Your task to perform on an android device: Go to CNN.com Image 0: 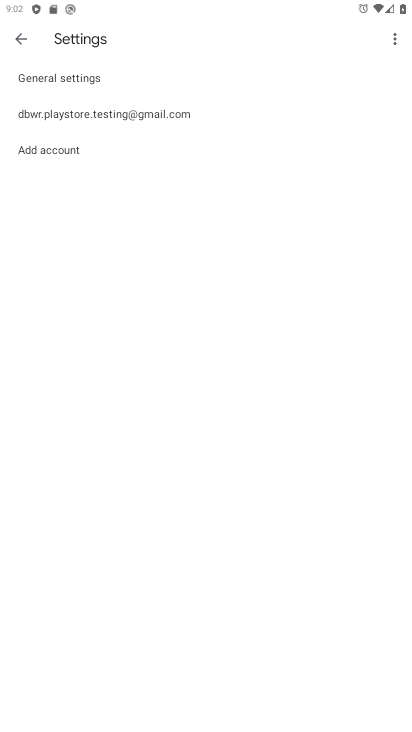
Step 0: press home button
Your task to perform on an android device: Go to CNN.com Image 1: 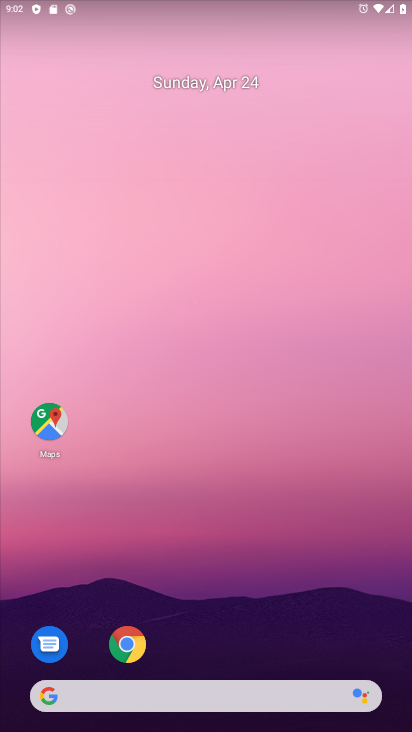
Step 1: drag from (208, 670) to (194, 24)
Your task to perform on an android device: Go to CNN.com Image 2: 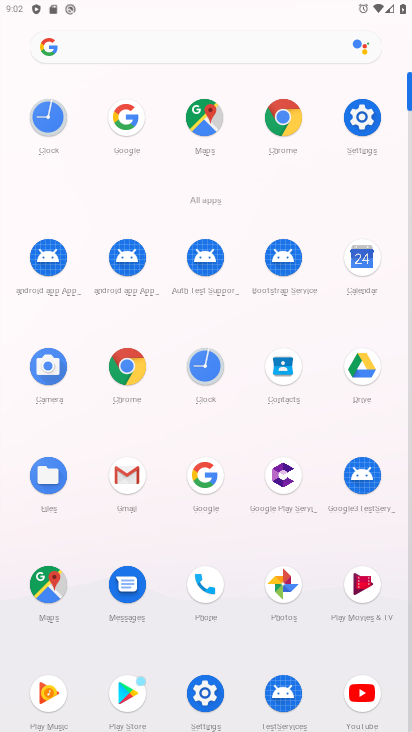
Step 2: click (280, 122)
Your task to perform on an android device: Go to CNN.com Image 3: 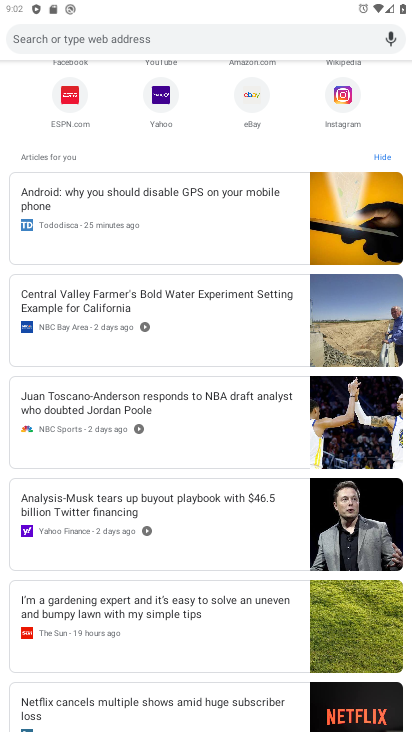
Step 3: drag from (260, 158) to (227, 667)
Your task to perform on an android device: Go to CNN.com Image 4: 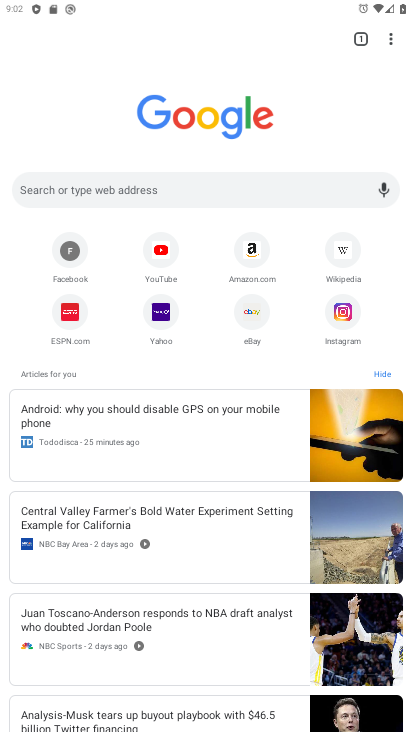
Step 4: click (197, 192)
Your task to perform on an android device: Go to CNN.com Image 5: 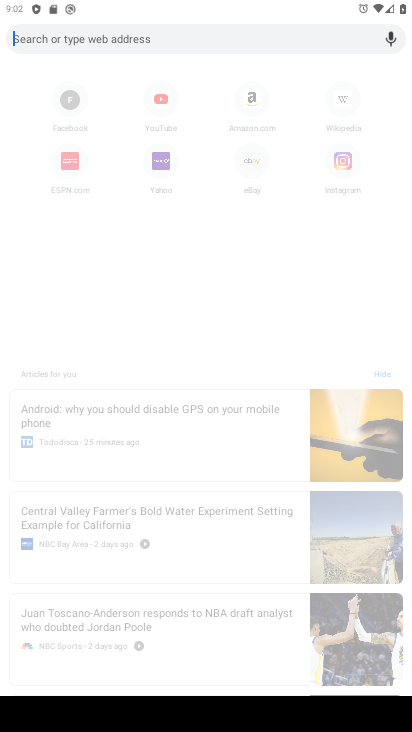
Step 5: type "cnn.com"
Your task to perform on an android device: Go to CNN.com Image 6: 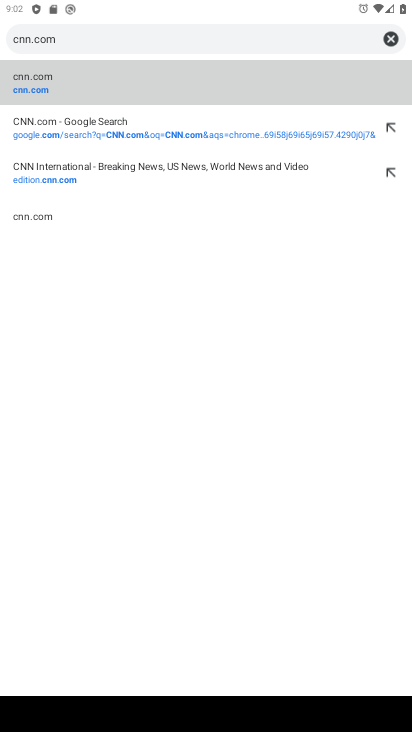
Step 6: click (39, 78)
Your task to perform on an android device: Go to CNN.com Image 7: 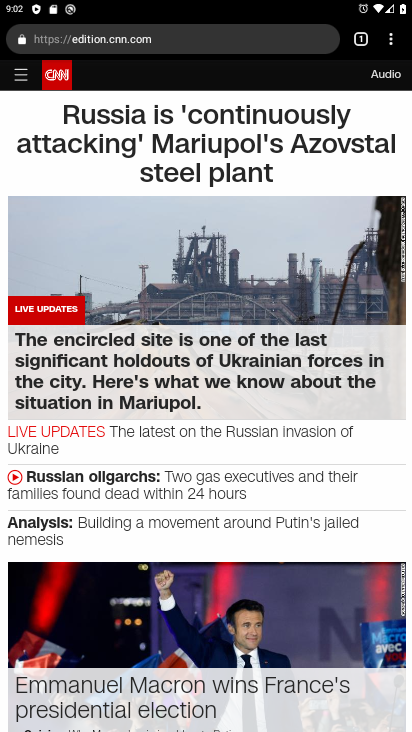
Step 7: task complete